Your task to perform on an android device: open chrome and create a bookmark for the current page Image 0: 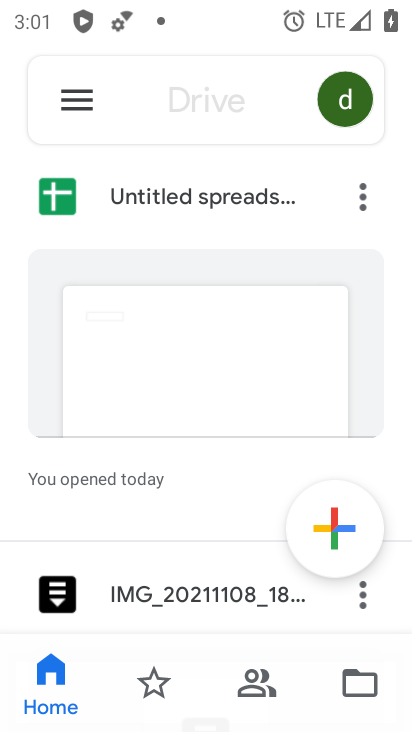
Step 0: press home button
Your task to perform on an android device: open chrome and create a bookmark for the current page Image 1: 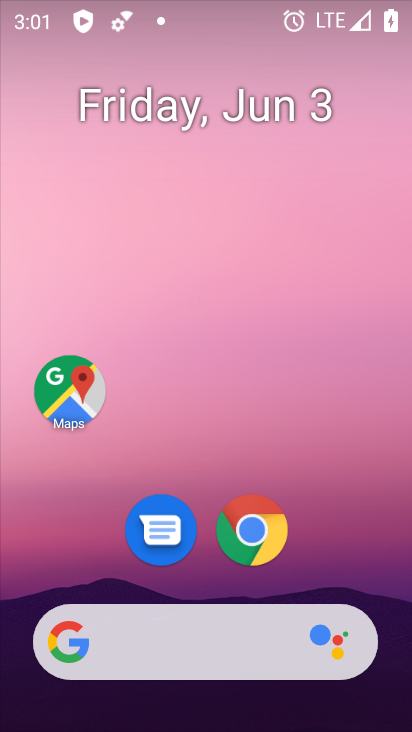
Step 1: click (278, 540)
Your task to perform on an android device: open chrome and create a bookmark for the current page Image 2: 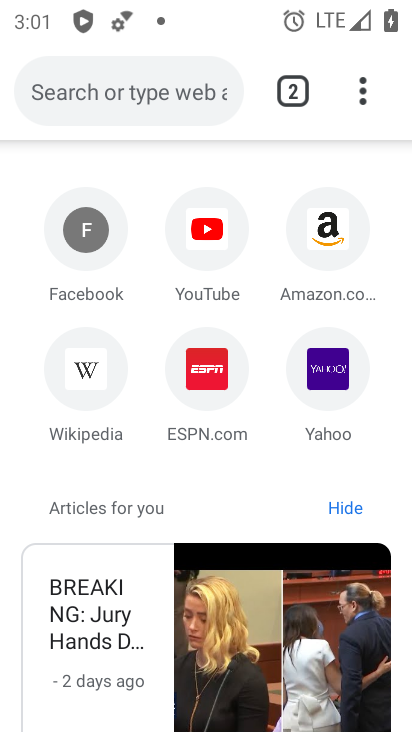
Step 2: click (360, 111)
Your task to perform on an android device: open chrome and create a bookmark for the current page Image 3: 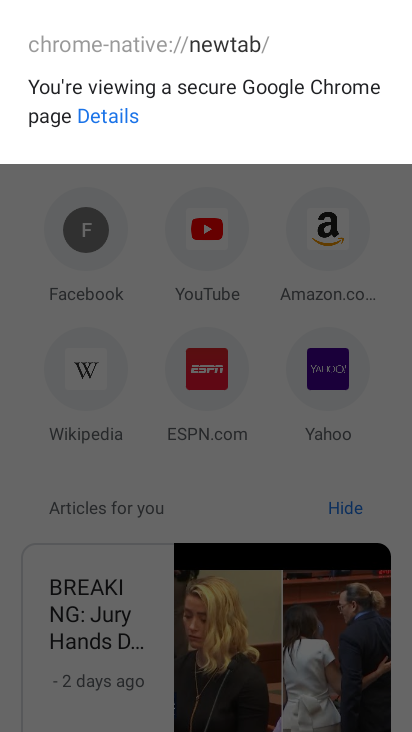
Step 3: click (237, 254)
Your task to perform on an android device: open chrome and create a bookmark for the current page Image 4: 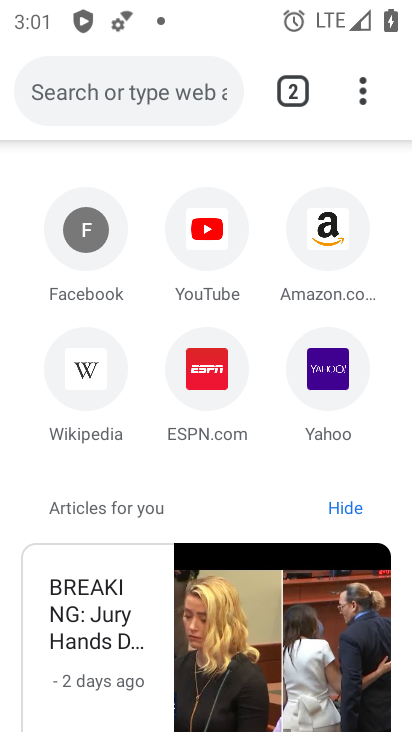
Step 4: click (364, 97)
Your task to perform on an android device: open chrome and create a bookmark for the current page Image 5: 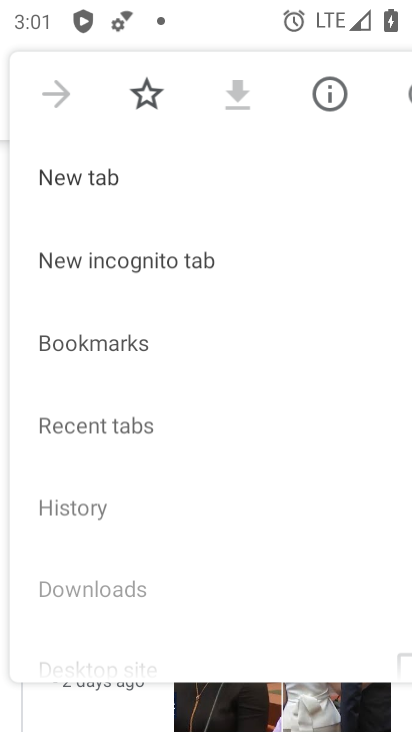
Step 5: click (151, 93)
Your task to perform on an android device: open chrome and create a bookmark for the current page Image 6: 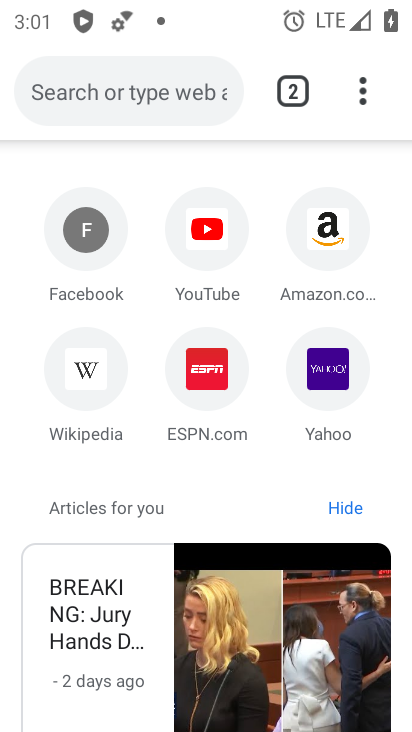
Step 6: click (364, 86)
Your task to perform on an android device: open chrome and create a bookmark for the current page Image 7: 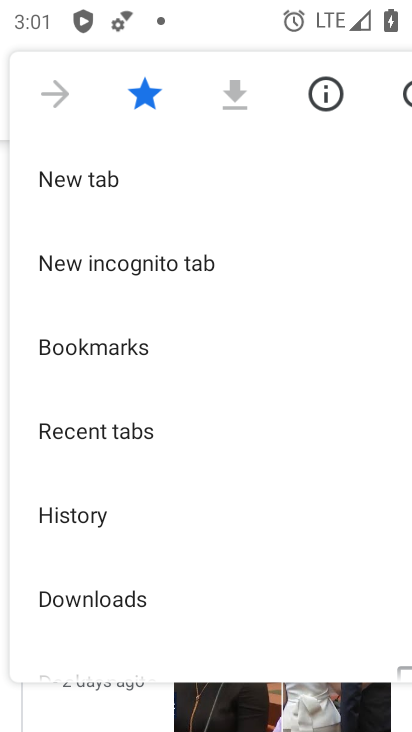
Step 7: task complete